Your task to perform on an android device: Go to wifi settings Image 0: 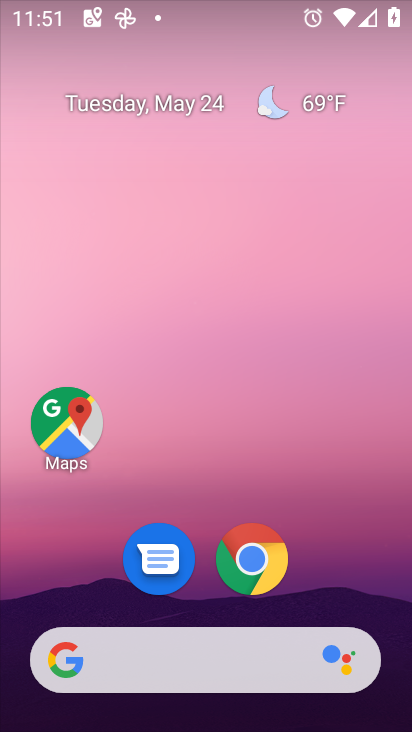
Step 0: drag from (395, 631) to (370, 240)
Your task to perform on an android device: Go to wifi settings Image 1: 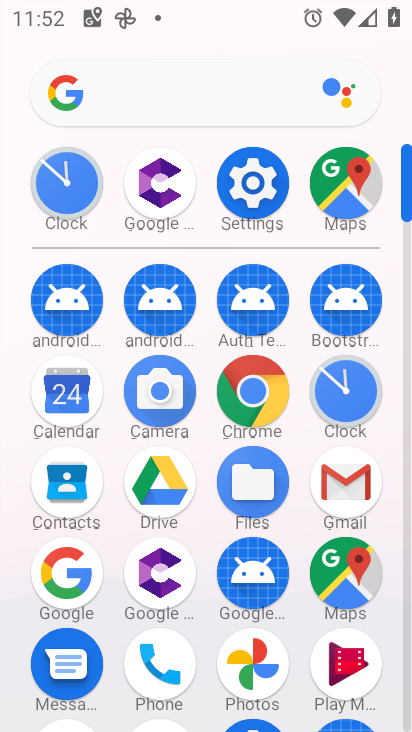
Step 1: click (258, 195)
Your task to perform on an android device: Go to wifi settings Image 2: 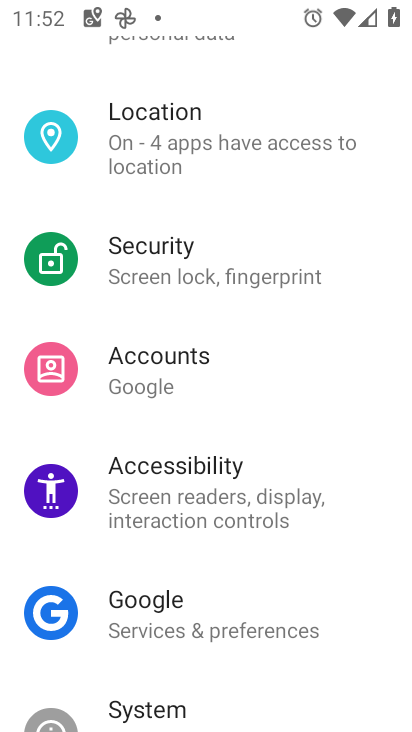
Step 2: drag from (257, 196) to (156, 726)
Your task to perform on an android device: Go to wifi settings Image 3: 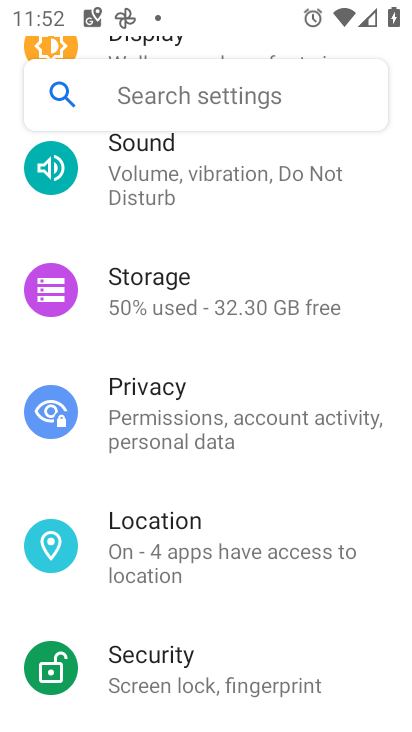
Step 3: drag from (137, 126) to (198, 614)
Your task to perform on an android device: Go to wifi settings Image 4: 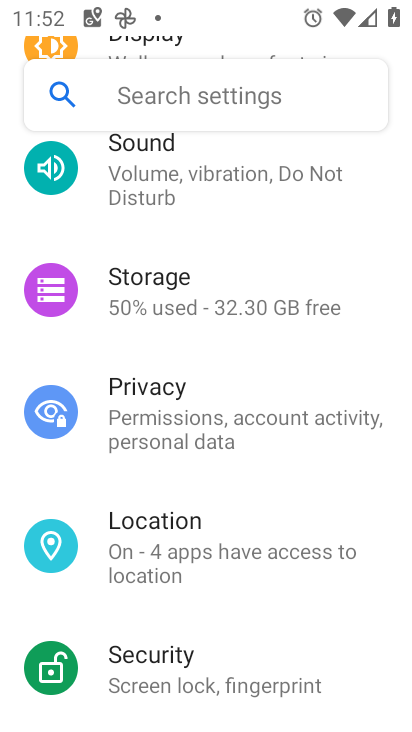
Step 4: drag from (163, 203) to (187, 627)
Your task to perform on an android device: Go to wifi settings Image 5: 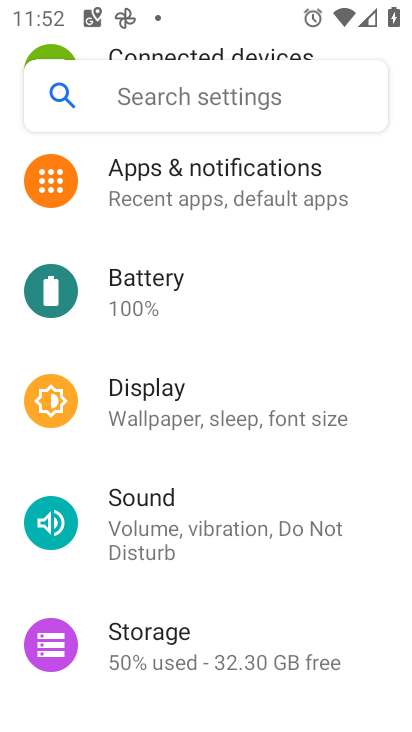
Step 5: drag from (177, 250) to (215, 649)
Your task to perform on an android device: Go to wifi settings Image 6: 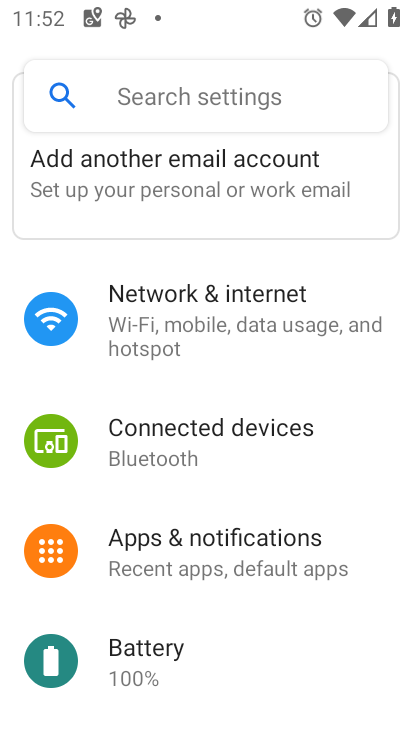
Step 6: click (223, 336)
Your task to perform on an android device: Go to wifi settings Image 7: 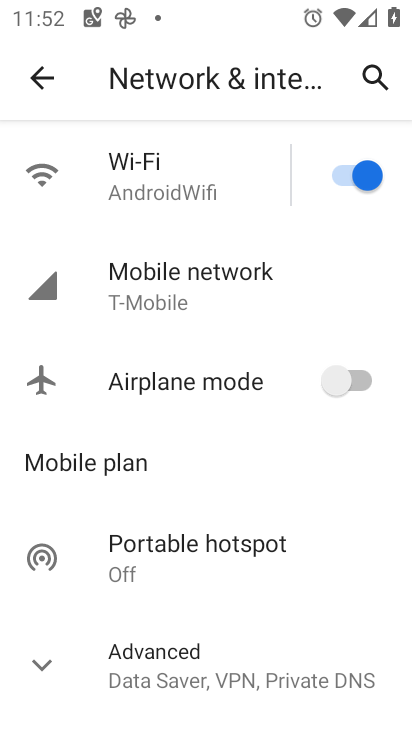
Step 7: click (151, 200)
Your task to perform on an android device: Go to wifi settings Image 8: 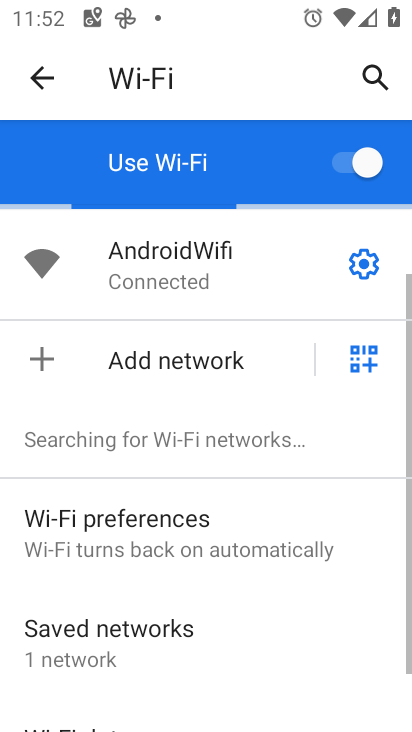
Step 8: task complete